Your task to perform on an android device: Open Youtube and go to "Your channel" Image 0: 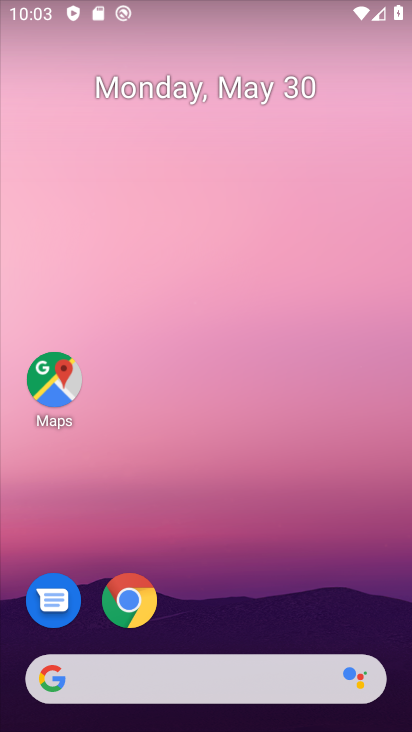
Step 0: drag from (208, 651) to (294, 223)
Your task to perform on an android device: Open Youtube and go to "Your channel" Image 1: 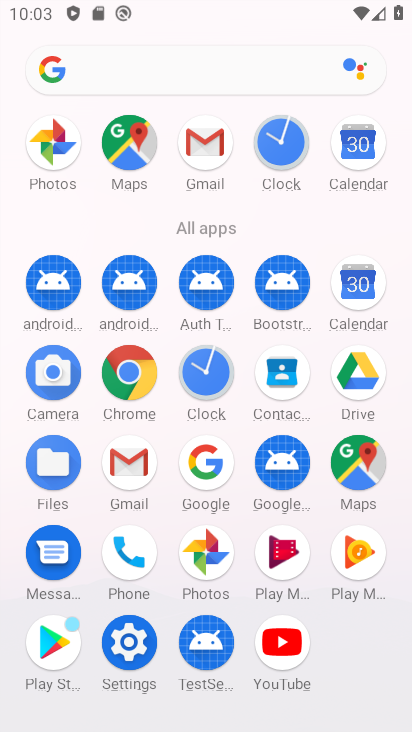
Step 1: click (292, 662)
Your task to perform on an android device: Open Youtube and go to "Your channel" Image 2: 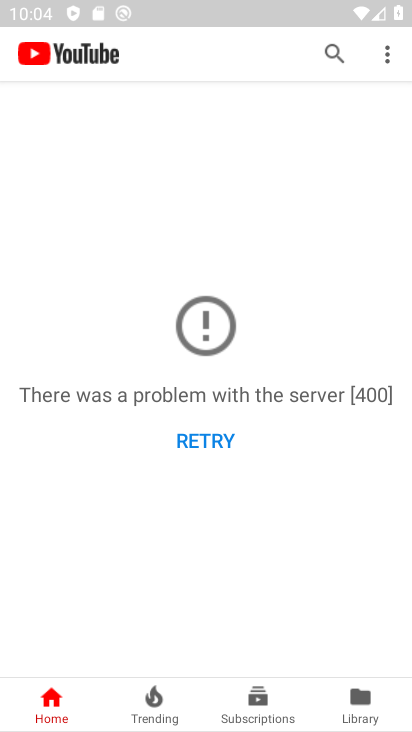
Step 2: click (362, 702)
Your task to perform on an android device: Open Youtube and go to "Your channel" Image 3: 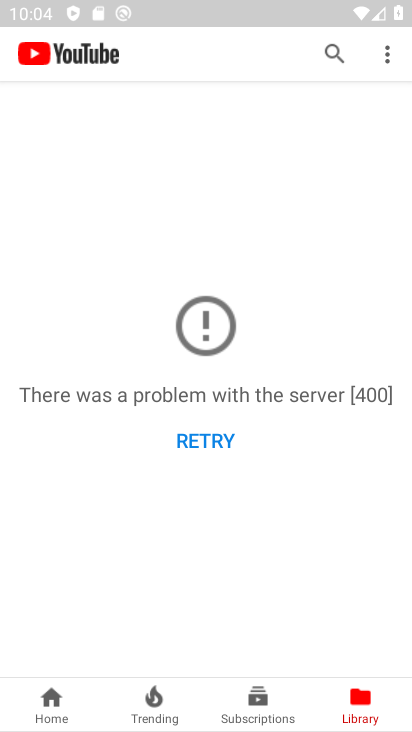
Step 3: click (360, 697)
Your task to perform on an android device: Open Youtube and go to "Your channel" Image 4: 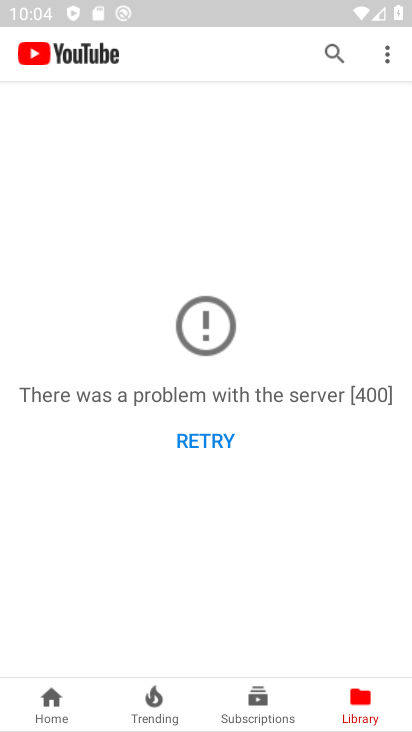
Step 4: task complete